Your task to perform on an android device: toggle notification dots Image 0: 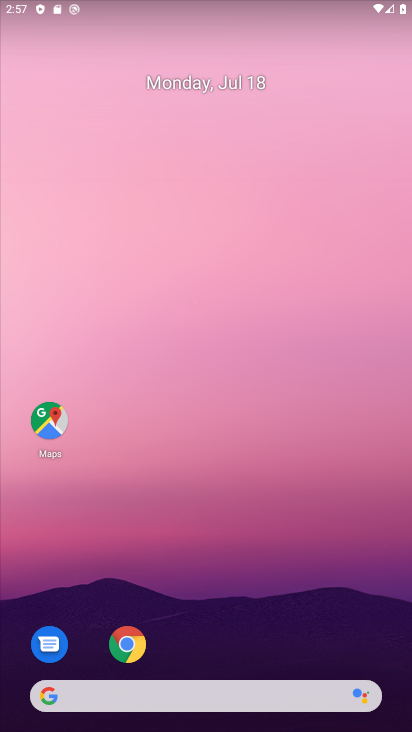
Step 0: drag from (235, 640) to (272, 7)
Your task to perform on an android device: toggle notification dots Image 1: 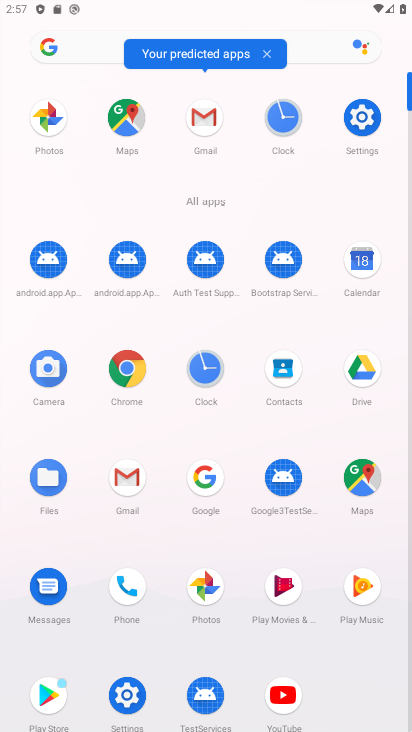
Step 1: click (357, 120)
Your task to perform on an android device: toggle notification dots Image 2: 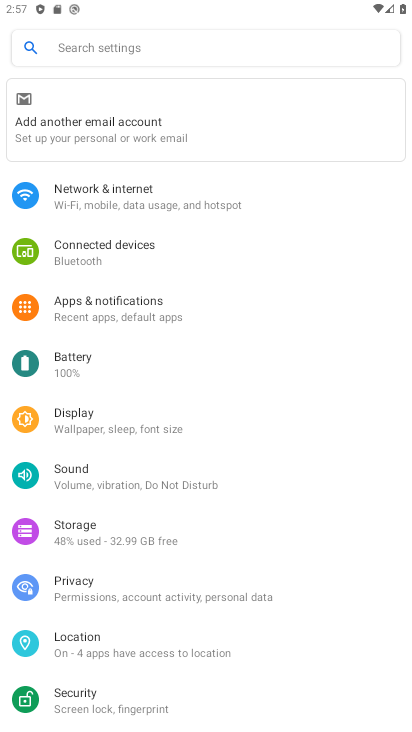
Step 2: click (123, 308)
Your task to perform on an android device: toggle notification dots Image 3: 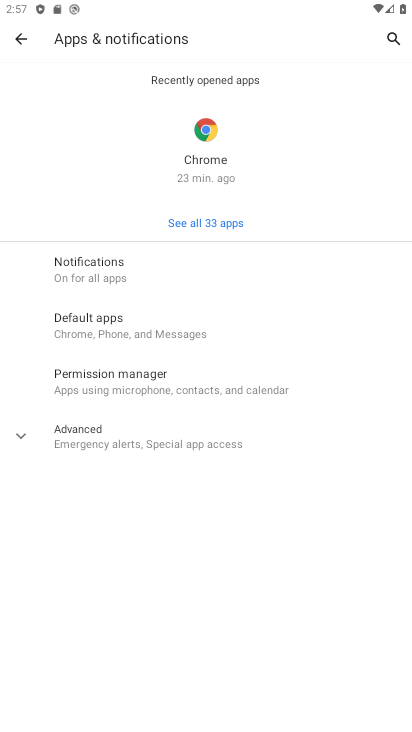
Step 3: click (86, 270)
Your task to perform on an android device: toggle notification dots Image 4: 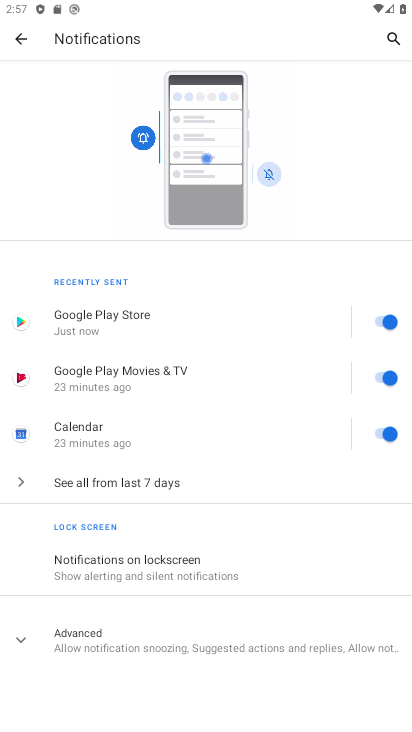
Step 4: click (78, 640)
Your task to perform on an android device: toggle notification dots Image 5: 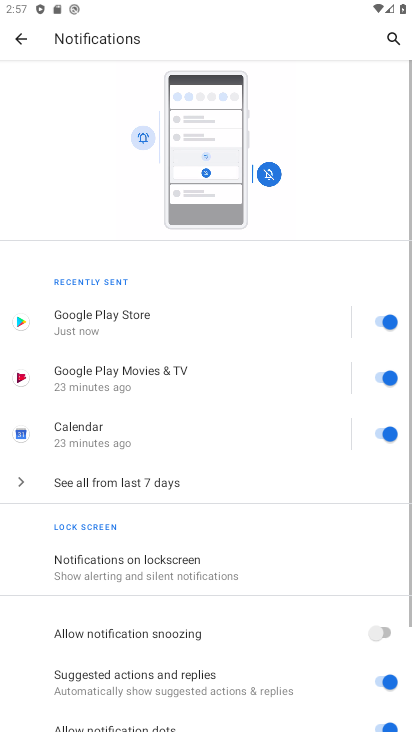
Step 5: drag from (306, 639) to (333, 237)
Your task to perform on an android device: toggle notification dots Image 6: 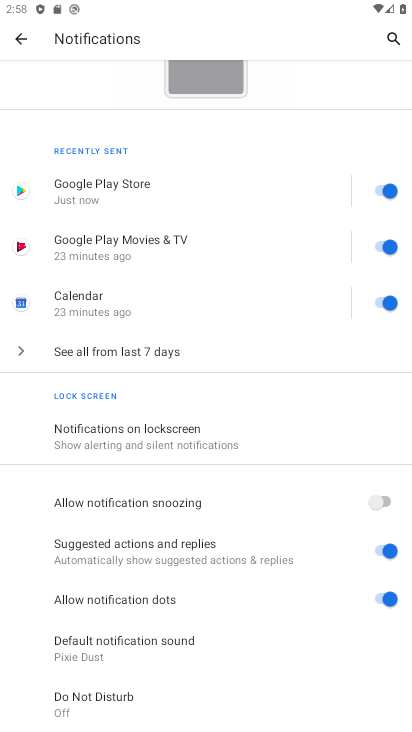
Step 6: click (389, 597)
Your task to perform on an android device: toggle notification dots Image 7: 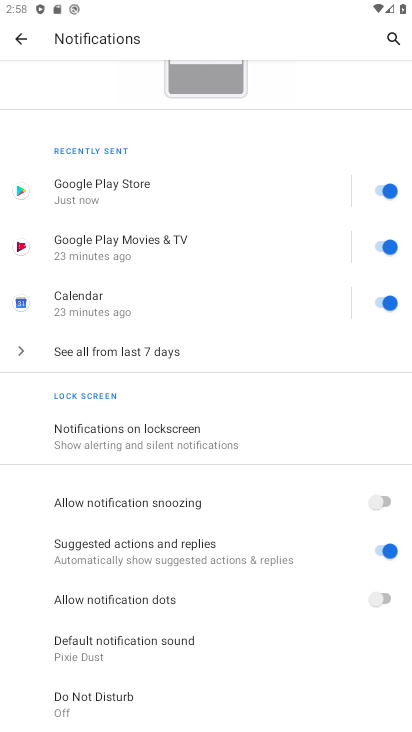
Step 7: task complete